Your task to perform on an android device: turn off notifications in google photos Image 0: 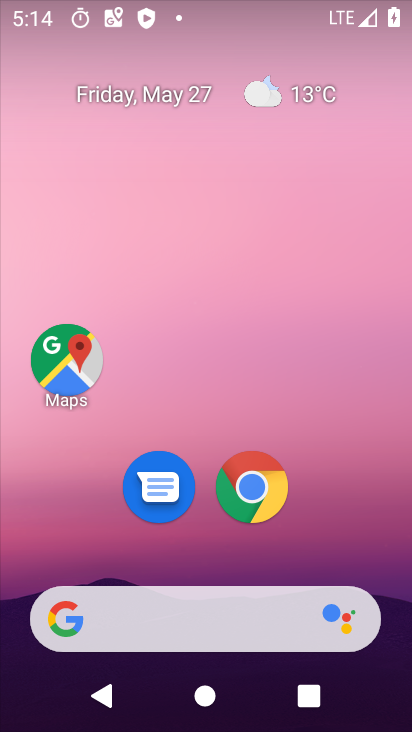
Step 0: drag from (394, 518) to (302, 20)
Your task to perform on an android device: turn off notifications in google photos Image 1: 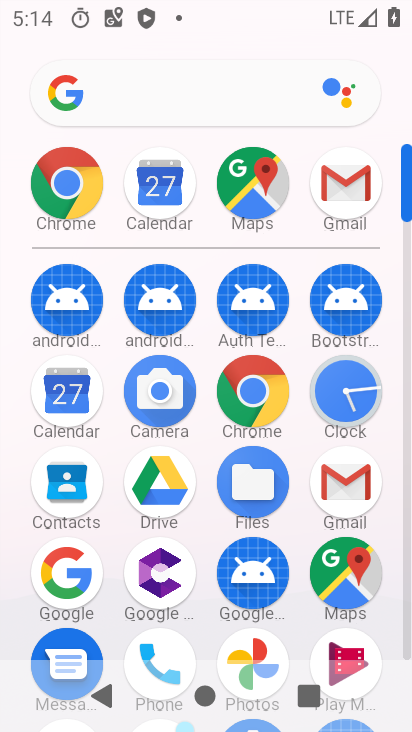
Step 1: click (248, 646)
Your task to perform on an android device: turn off notifications in google photos Image 2: 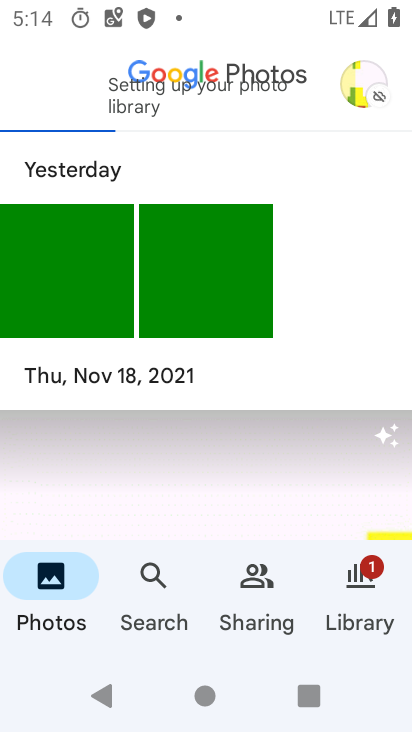
Step 2: click (353, 89)
Your task to perform on an android device: turn off notifications in google photos Image 3: 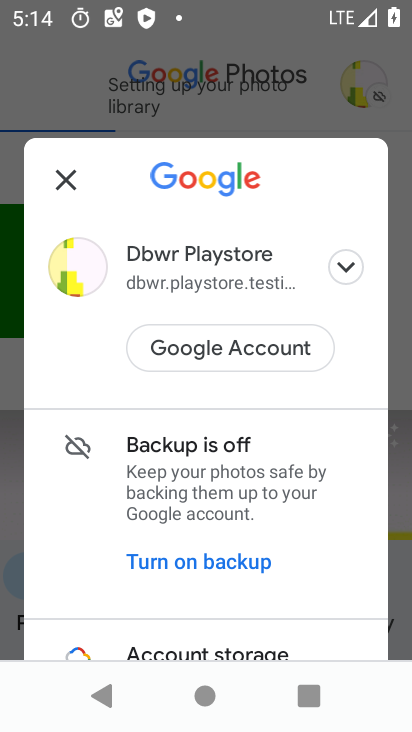
Step 3: drag from (227, 542) to (338, 198)
Your task to perform on an android device: turn off notifications in google photos Image 4: 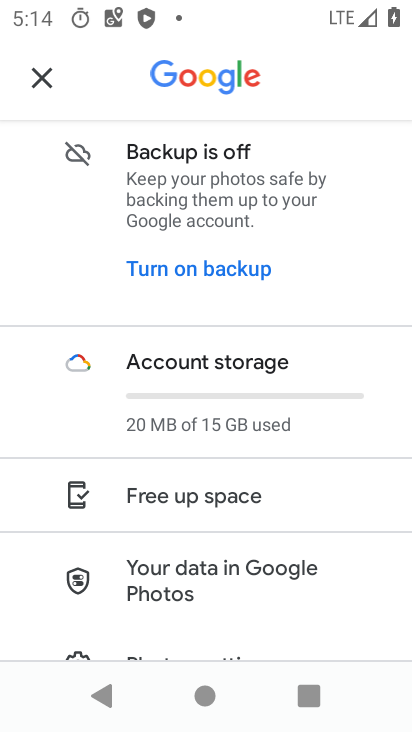
Step 4: drag from (249, 540) to (347, 177)
Your task to perform on an android device: turn off notifications in google photos Image 5: 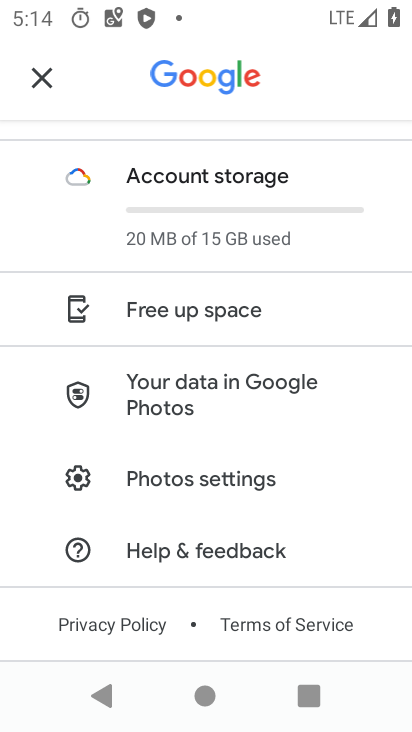
Step 5: click (212, 485)
Your task to perform on an android device: turn off notifications in google photos Image 6: 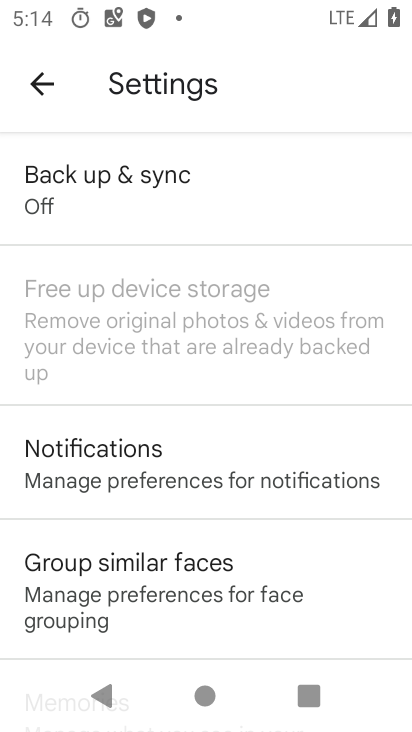
Step 6: click (212, 464)
Your task to perform on an android device: turn off notifications in google photos Image 7: 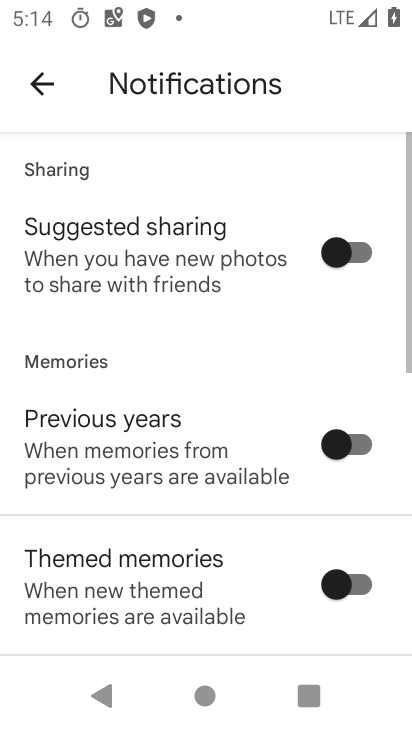
Step 7: drag from (155, 558) to (242, 46)
Your task to perform on an android device: turn off notifications in google photos Image 8: 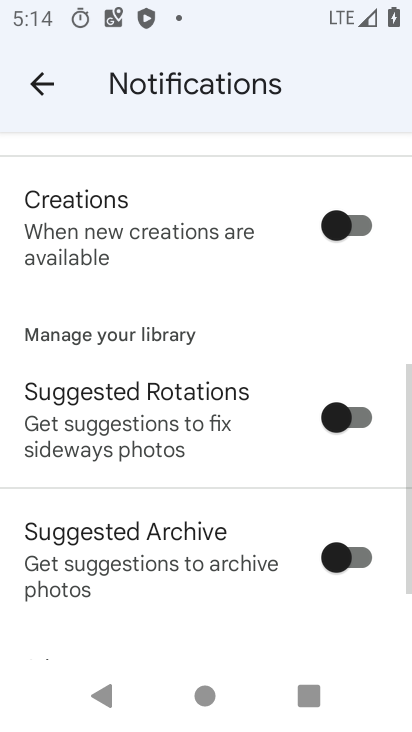
Step 8: drag from (114, 577) to (224, 128)
Your task to perform on an android device: turn off notifications in google photos Image 9: 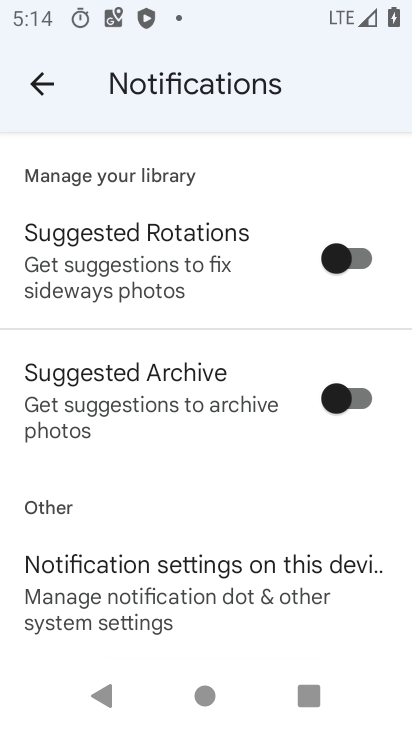
Step 9: click (144, 582)
Your task to perform on an android device: turn off notifications in google photos Image 10: 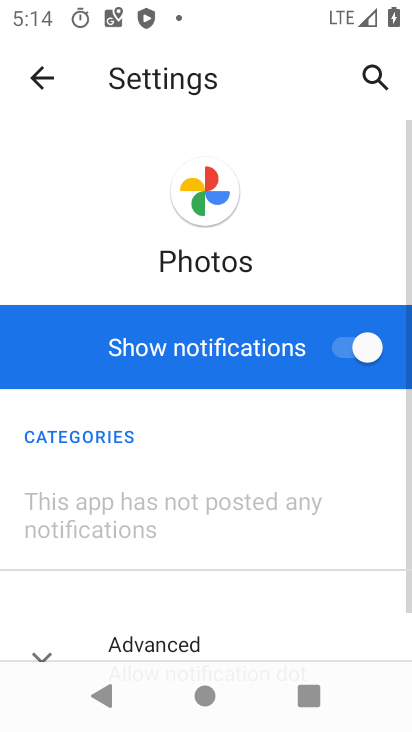
Step 10: click (378, 352)
Your task to perform on an android device: turn off notifications in google photos Image 11: 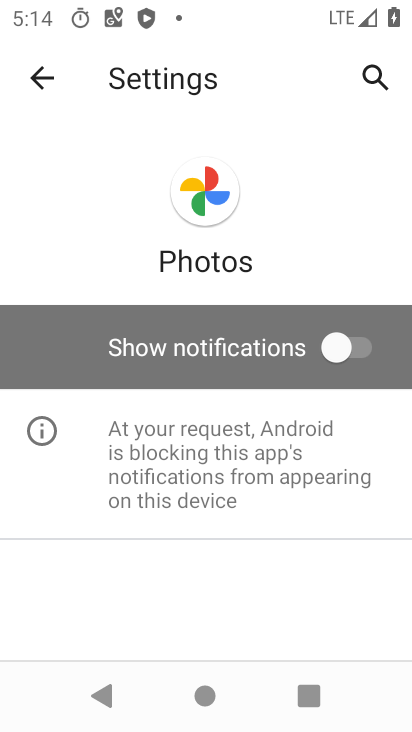
Step 11: task complete